Your task to perform on an android device: What's the weather going to be this weekend? Image 0: 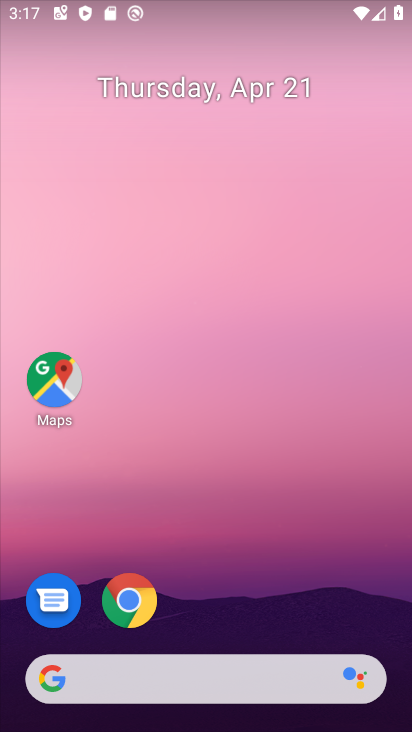
Step 0: drag from (346, 626) to (406, 62)
Your task to perform on an android device: What's the weather going to be this weekend? Image 1: 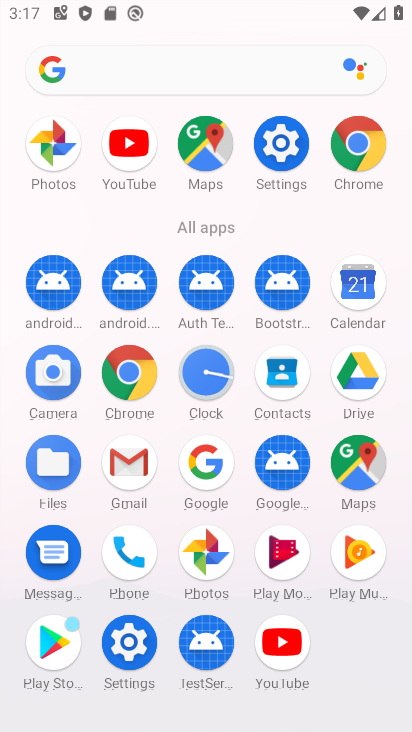
Step 1: click (182, 63)
Your task to perform on an android device: What's the weather going to be this weekend? Image 2: 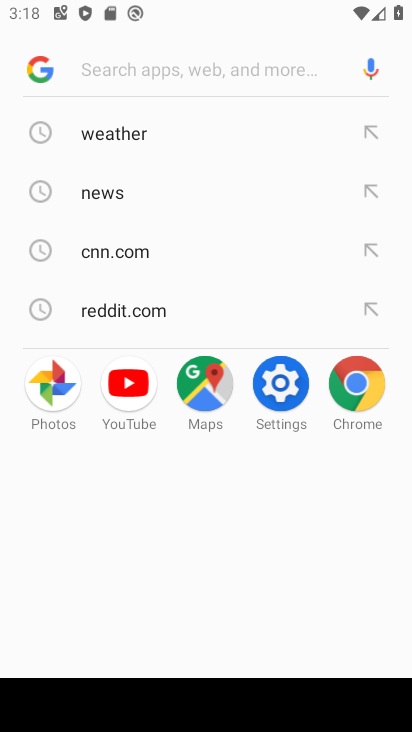
Step 2: type "what's the weather going to be thi weekend"
Your task to perform on an android device: What's the weather going to be this weekend? Image 3: 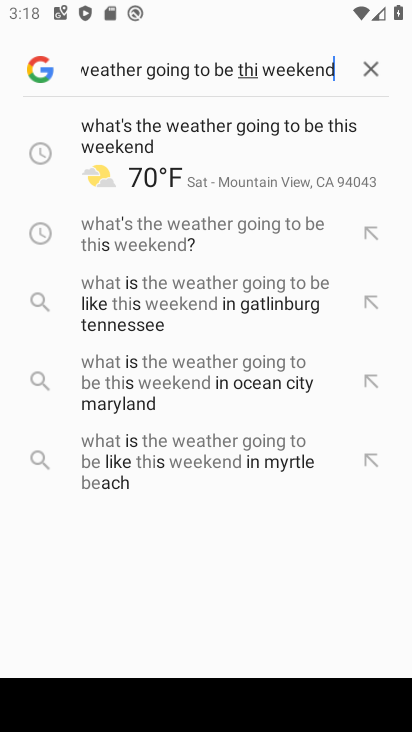
Step 3: click (169, 121)
Your task to perform on an android device: What's the weather going to be this weekend? Image 4: 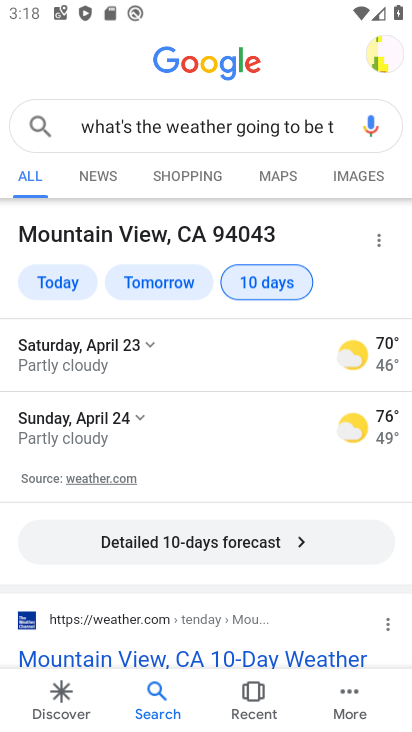
Step 4: task complete